Your task to perform on an android device: toggle improve location accuracy Image 0: 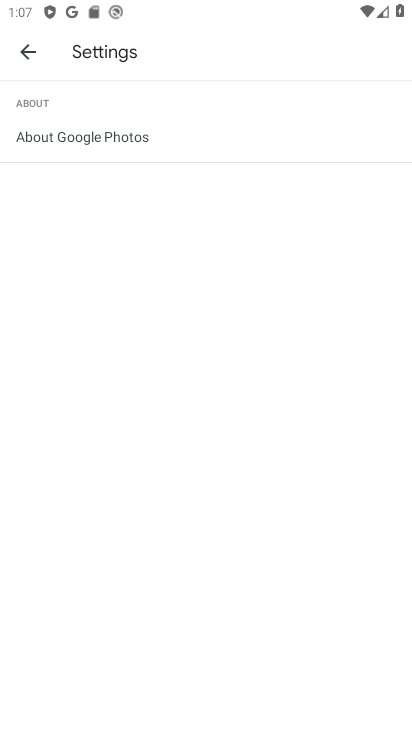
Step 0: press home button
Your task to perform on an android device: toggle improve location accuracy Image 1: 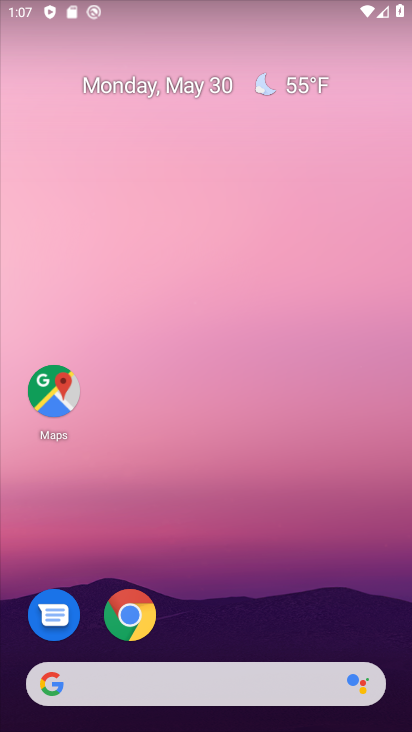
Step 1: drag from (188, 641) to (297, 34)
Your task to perform on an android device: toggle improve location accuracy Image 2: 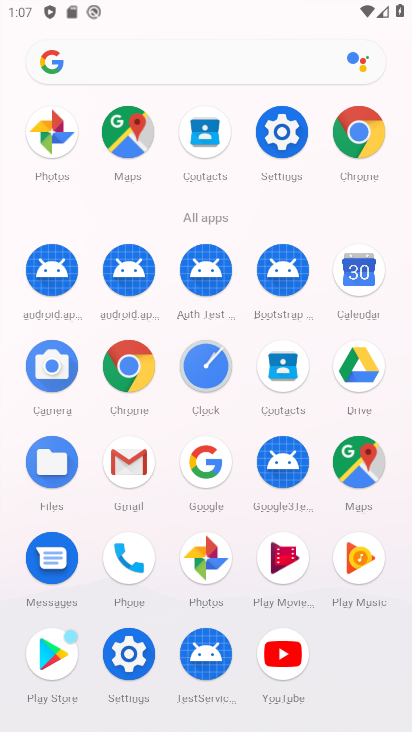
Step 2: click (130, 660)
Your task to perform on an android device: toggle improve location accuracy Image 3: 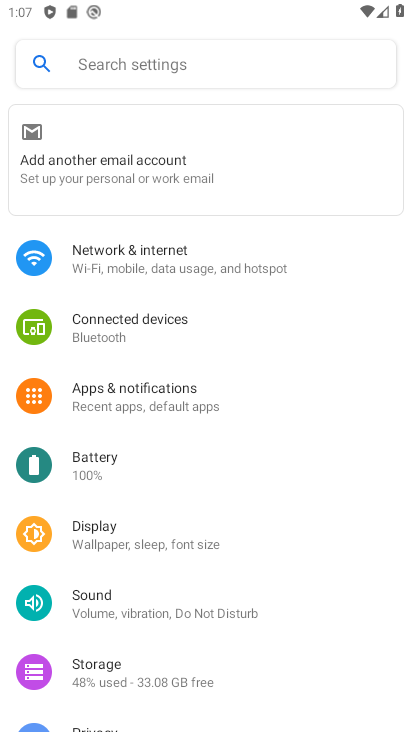
Step 3: drag from (154, 638) to (236, 235)
Your task to perform on an android device: toggle improve location accuracy Image 4: 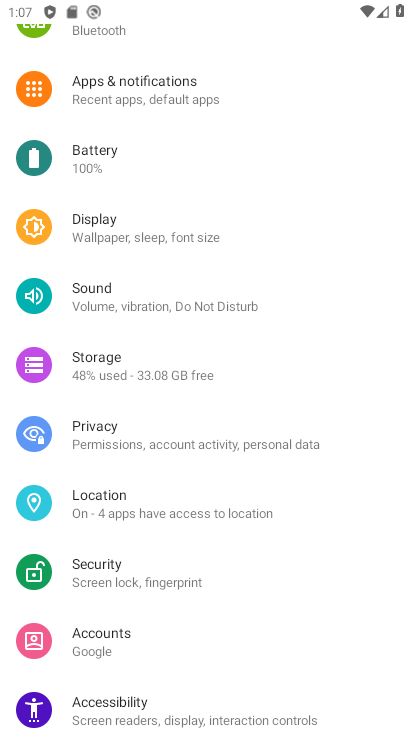
Step 4: click (133, 508)
Your task to perform on an android device: toggle improve location accuracy Image 5: 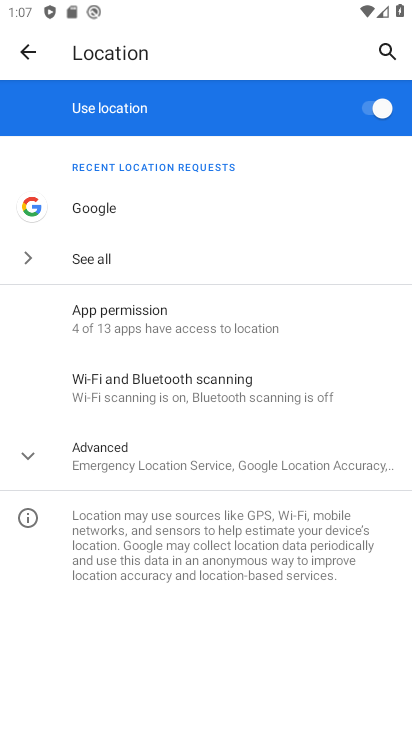
Step 5: click (204, 452)
Your task to perform on an android device: toggle improve location accuracy Image 6: 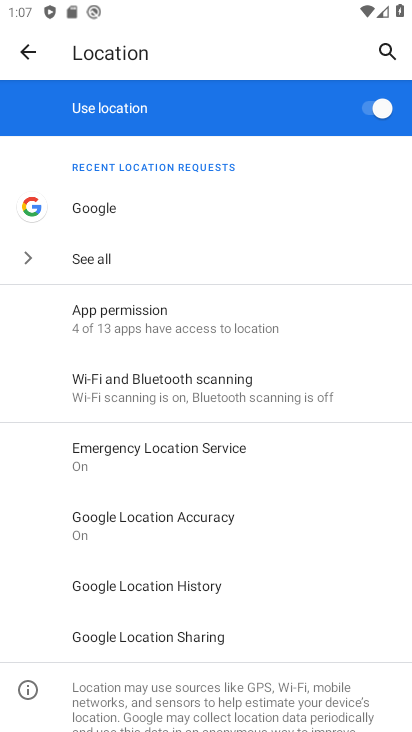
Step 6: click (270, 523)
Your task to perform on an android device: toggle improve location accuracy Image 7: 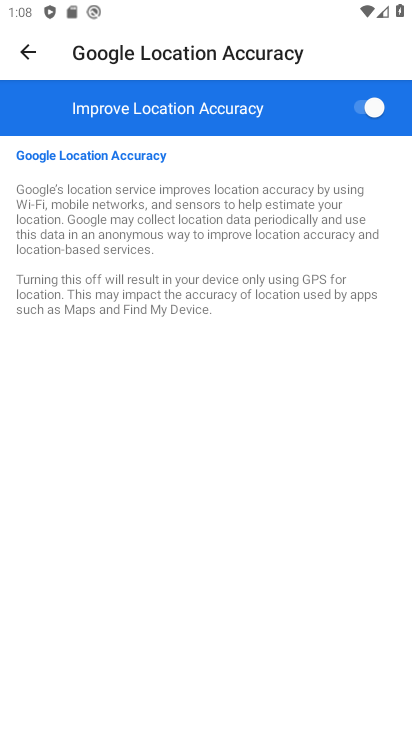
Step 7: click (360, 108)
Your task to perform on an android device: toggle improve location accuracy Image 8: 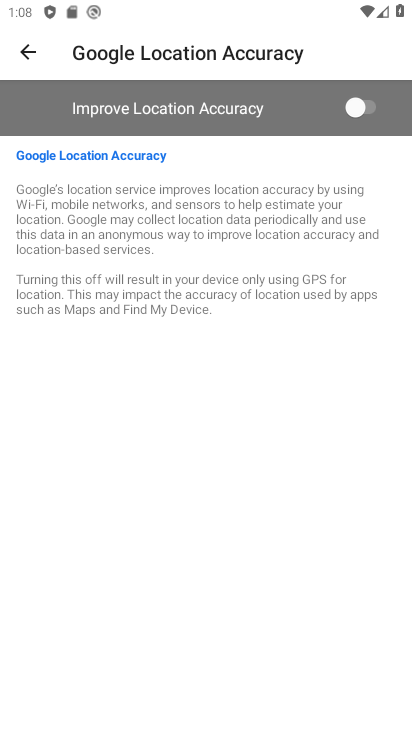
Step 8: task complete